Your task to perform on an android device: What's the weather going to be tomorrow? Image 0: 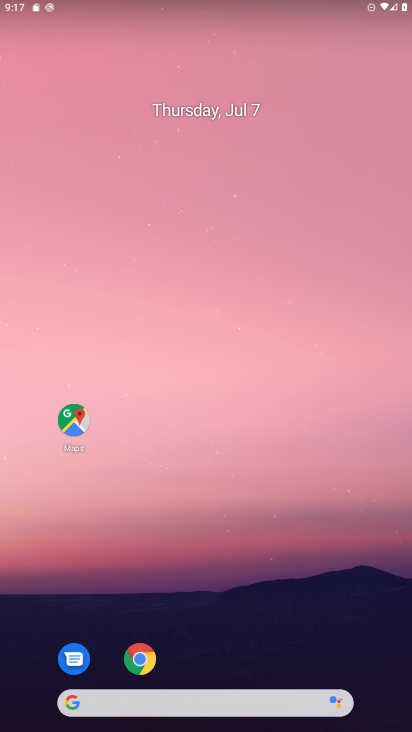
Step 0: click (206, 707)
Your task to perform on an android device: What's the weather going to be tomorrow? Image 1: 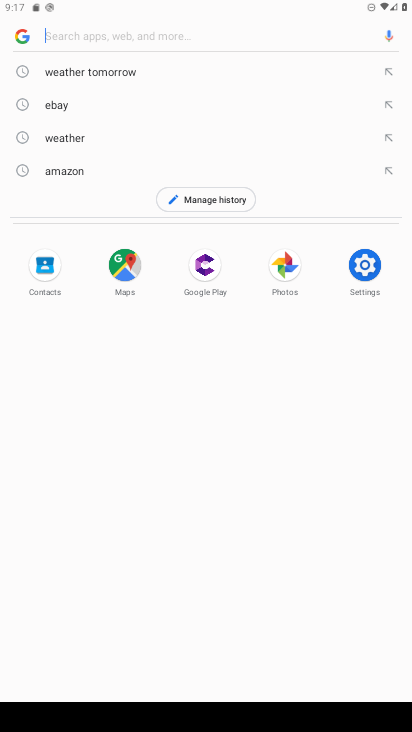
Step 1: type "what's the weather going to be tomorrow?"
Your task to perform on an android device: What's the weather going to be tomorrow? Image 2: 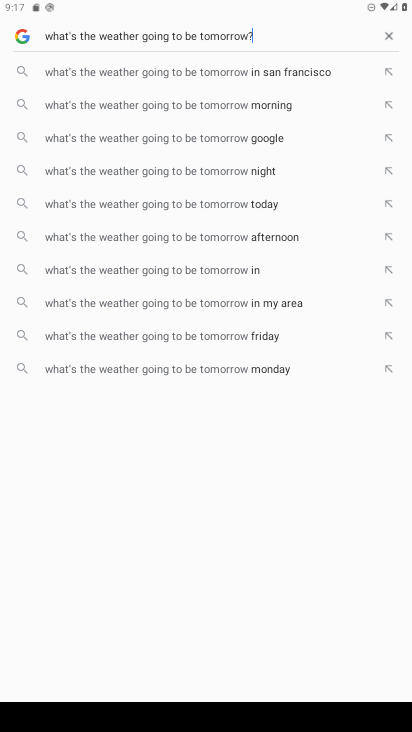
Step 2: click (265, 65)
Your task to perform on an android device: What's the weather going to be tomorrow? Image 3: 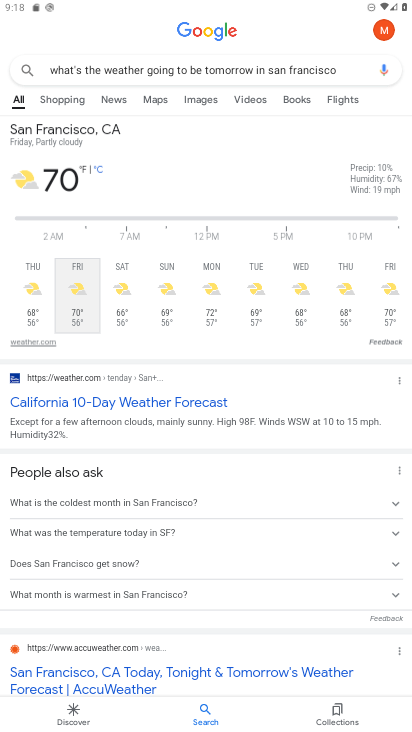
Step 3: task complete